Your task to perform on an android device: What's the weather going to be tomorrow? Image 0: 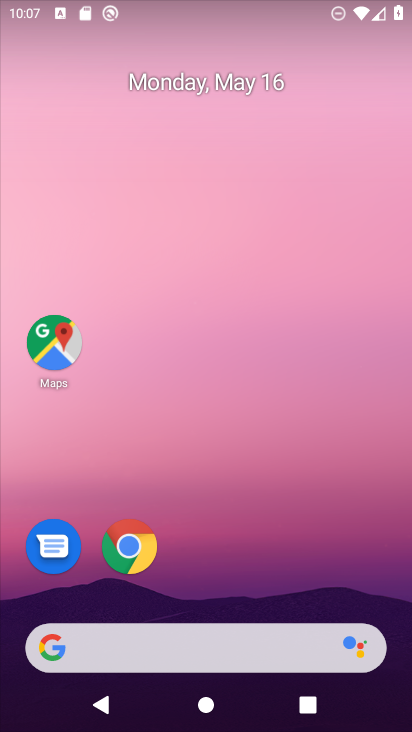
Step 0: click (193, 663)
Your task to perform on an android device: What's the weather going to be tomorrow? Image 1: 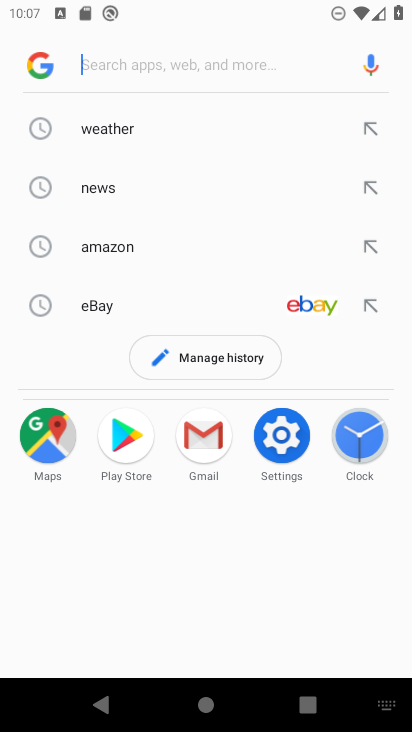
Step 1: click (126, 126)
Your task to perform on an android device: What's the weather going to be tomorrow? Image 2: 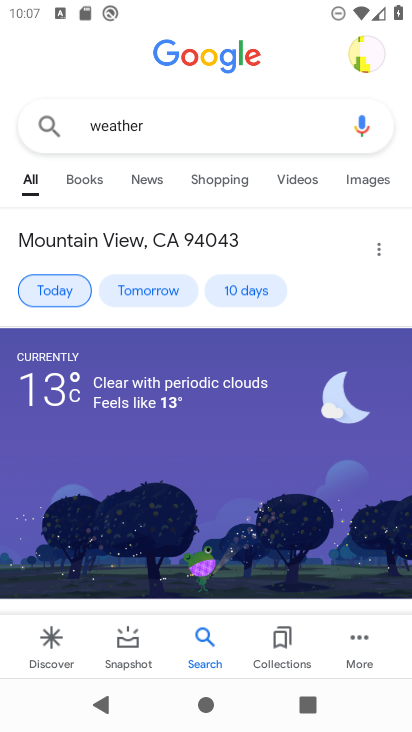
Step 2: task complete